Your task to perform on an android device: open a bookmark in the chrome app Image 0: 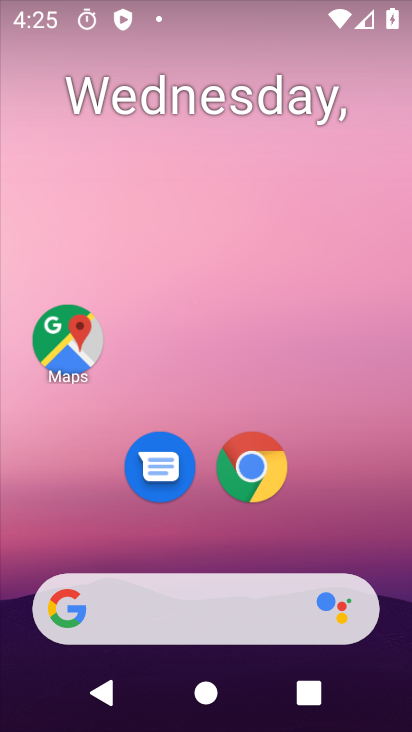
Step 0: click (235, 471)
Your task to perform on an android device: open a bookmark in the chrome app Image 1: 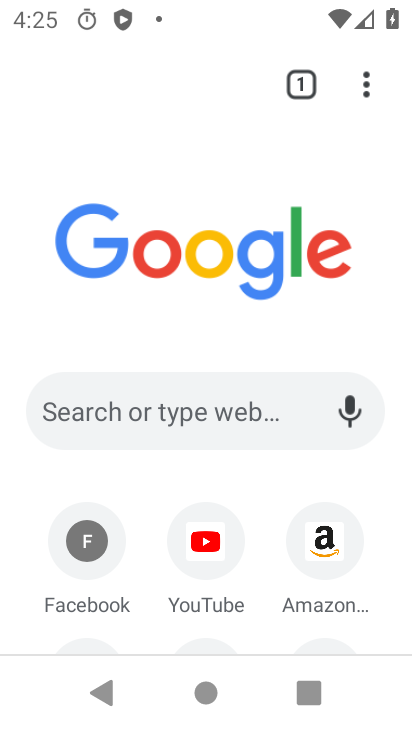
Step 1: click (365, 81)
Your task to perform on an android device: open a bookmark in the chrome app Image 2: 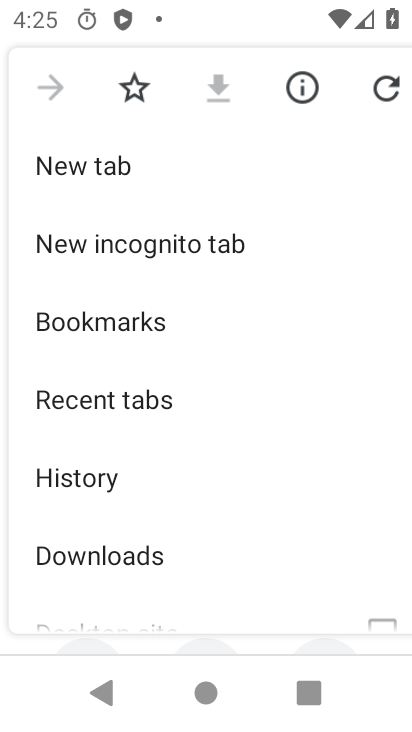
Step 2: click (84, 327)
Your task to perform on an android device: open a bookmark in the chrome app Image 3: 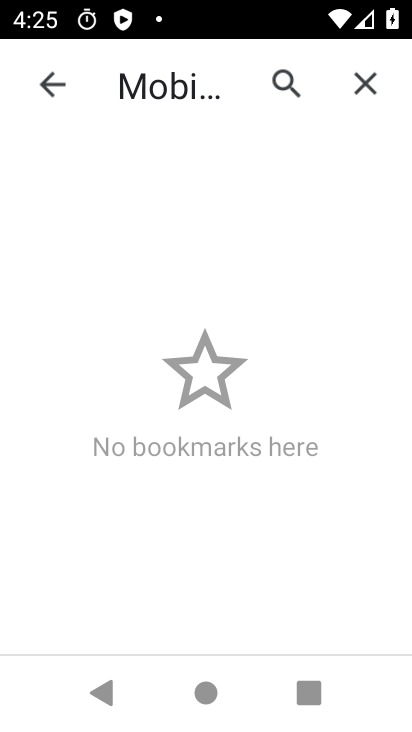
Step 3: task complete